Your task to perform on an android device: change keyboard looks Image 0: 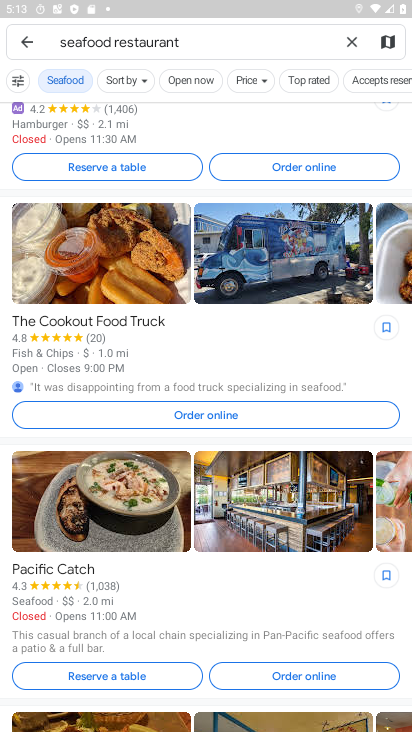
Step 0: press home button
Your task to perform on an android device: change keyboard looks Image 1: 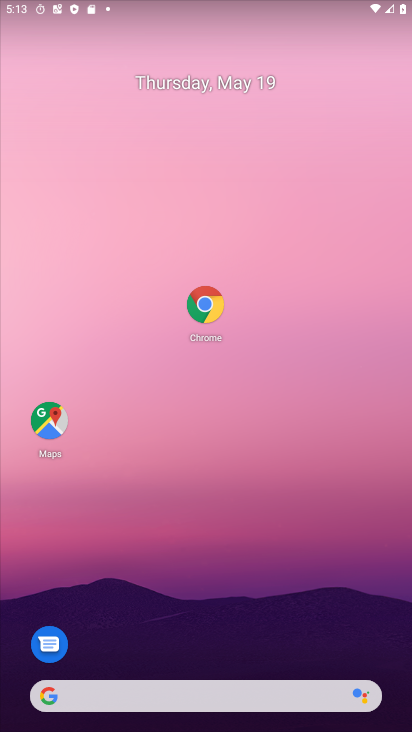
Step 1: drag from (142, 671) to (149, 240)
Your task to perform on an android device: change keyboard looks Image 2: 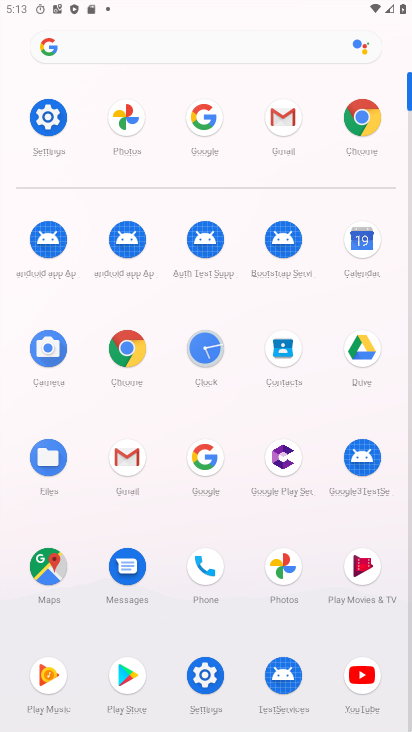
Step 2: click (39, 112)
Your task to perform on an android device: change keyboard looks Image 3: 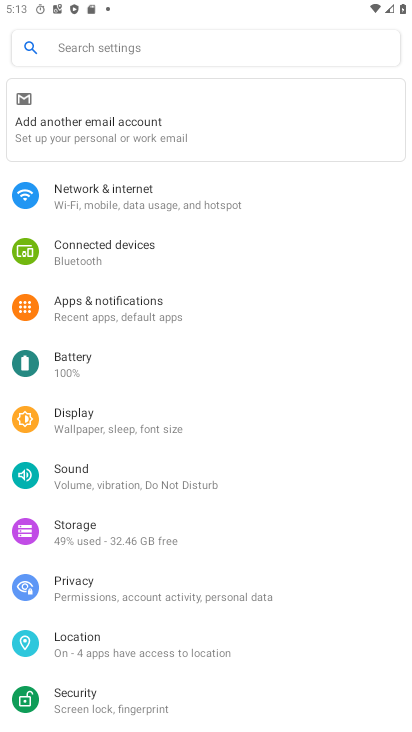
Step 3: drag from (116, 706) to (112, 305)
Your task to perform on an android device: change keyboard looks Image 4: 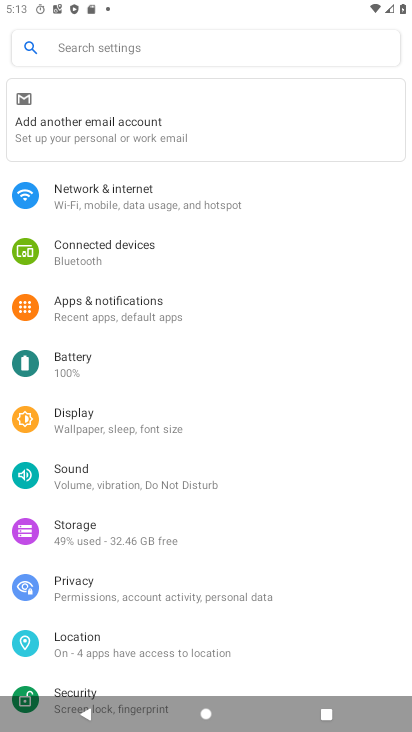
Step 4: drag from (113, 667) to (119, 312)
Your task to perform on an android device: change keyboard looks Image 5: 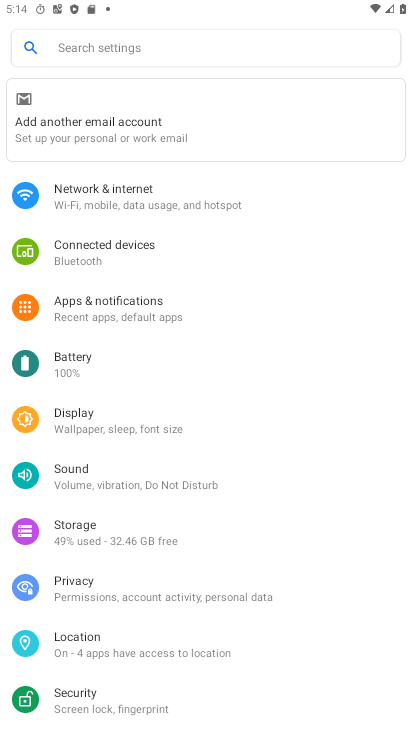
Step 5: drag from (111, 672) to (123, 215)
Your task to perform on an android device: change keyboard looks Image 6: 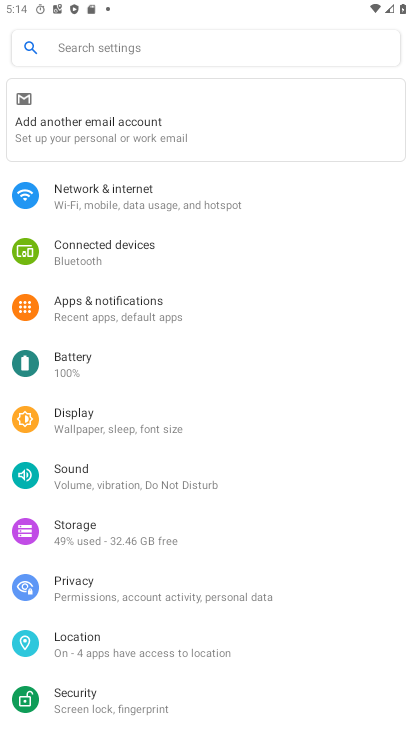
Step 6: drag from (81, 707) to (112, 283)
Your task to perform on an android device: change keyboard looks Image 7: 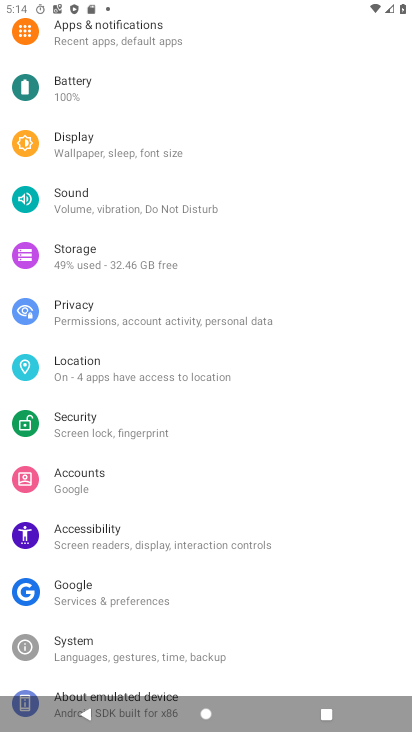
Step 7: click (51, 650)
Your task to perform on an android device: change keyboard looks Image 8: 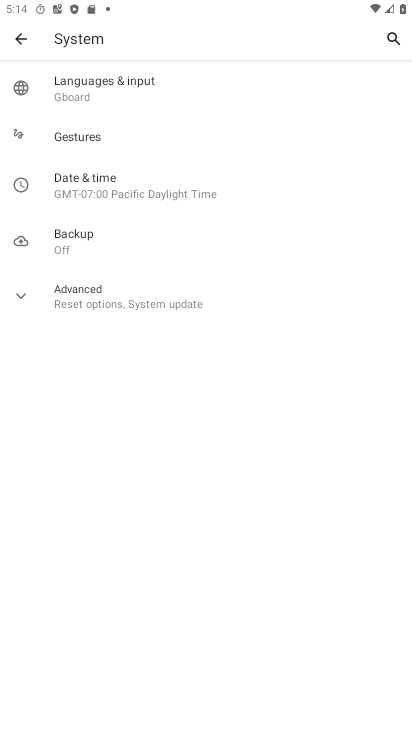
Step 8: click (116, 88)
Your task to perform on an android device: change keyboard looks Image 9: 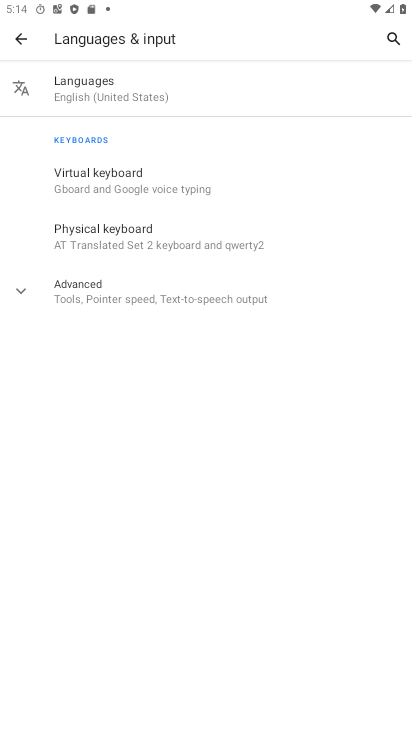
Step 9: click (80, 192)
Your task to perform on an android device: change keyboard looks Image 10: 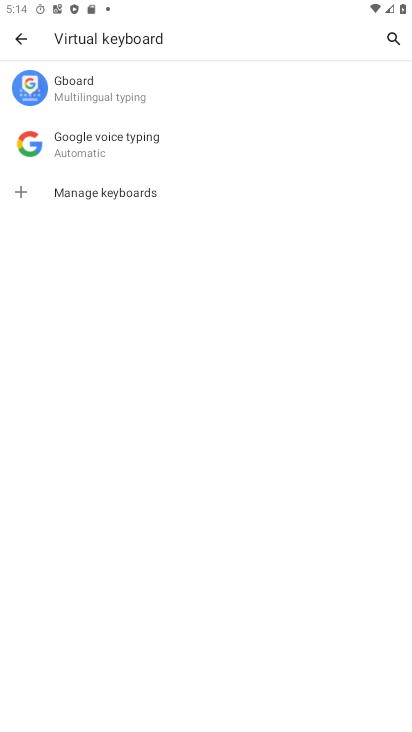
Step 10: click (85, 89)
Your task to perform on an android device: change keyboard looks Image 11: 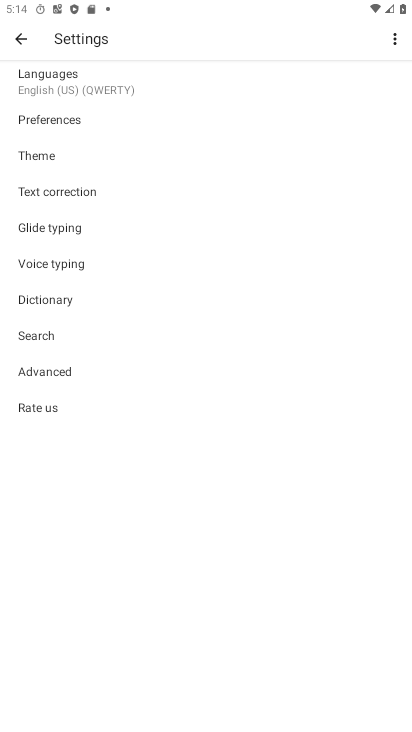
Step 11: click (50, 156)
Your task to perform on an android device: change keyboard looks Image 12: 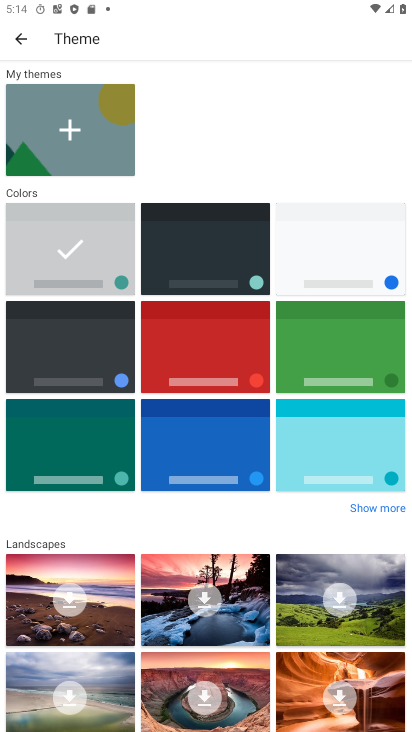
Step 12: click (207, 370)
Your task to perform on an android device: change keyboard looks Image 13: 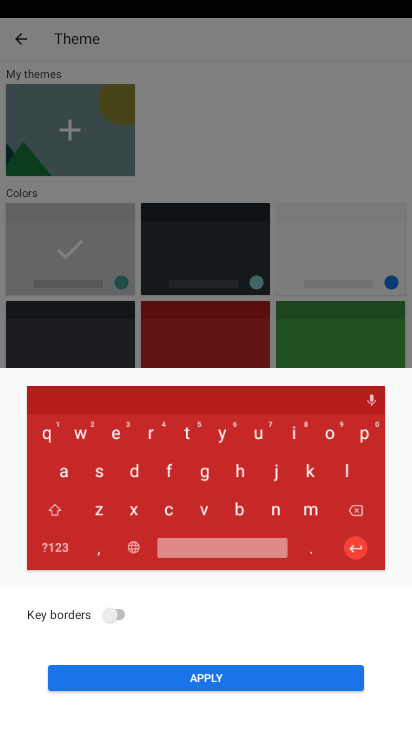
Step 13: click (221, 674)
Your task to perform on an android device: change keyboard looks Image 14: 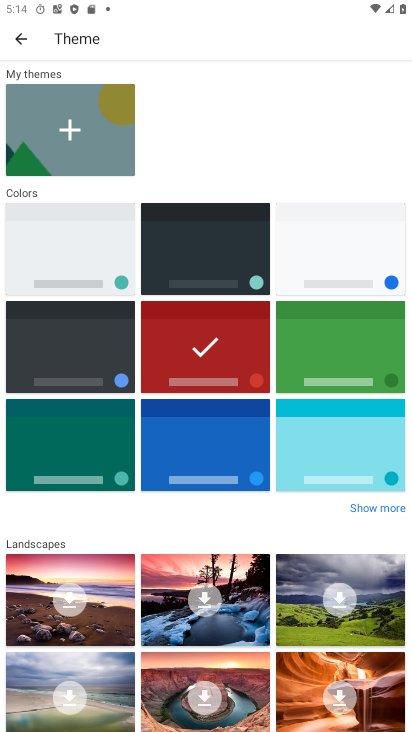
Step 14: task complete